Your task to perform on an android device: turn off sleep mode Image 0: 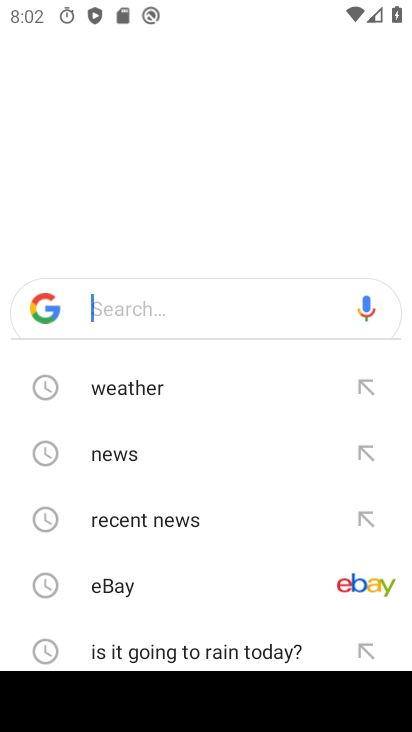
Step 0: press home button
Your task to perform on an android device: turn off sleep mode Image 1: 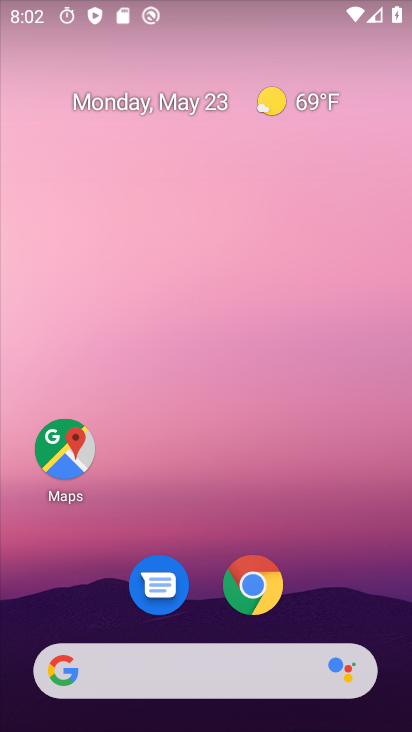
Step 1: drag from (196, 518) to (199, 70)
Your task to perform on an android device: turn off sleep mode Image 2: 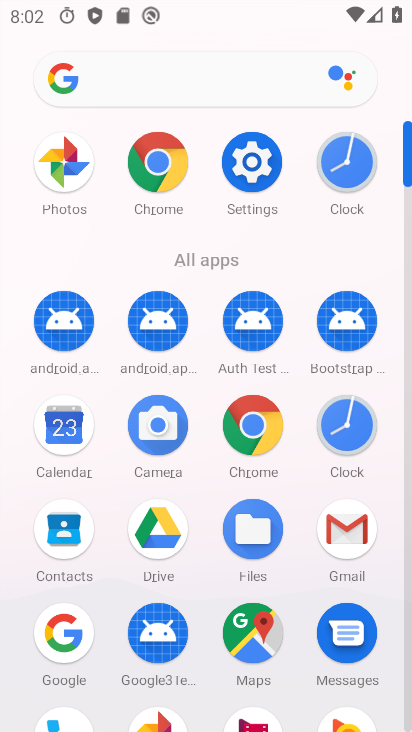
Step 2: click (253, 167)
Your task to perform on an android device: turn off sleep mode Image 3: 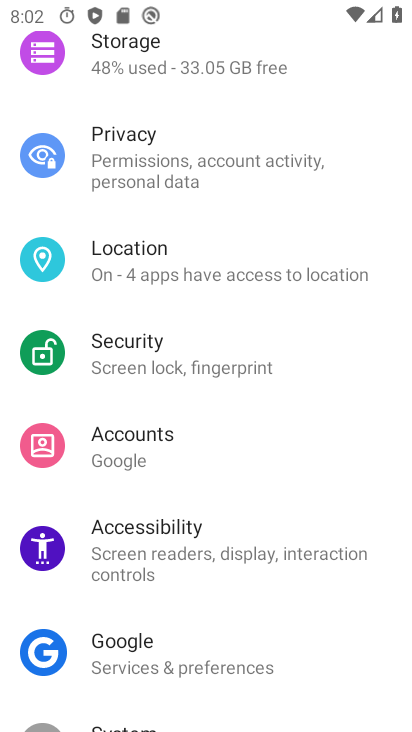
Step 3: drag from (216, 215) to (197, 680)
Your task to perform on an android device: turn off sleep mode Image 4: 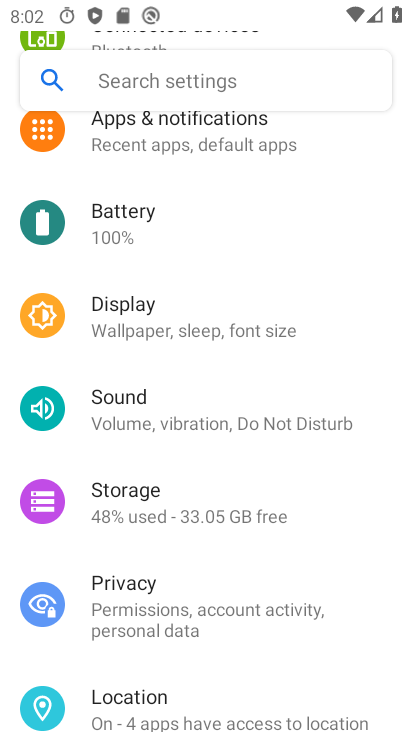
Step 4: click (218, 330)
Your task to perform on an android device: turn off sleep mode Image 5: 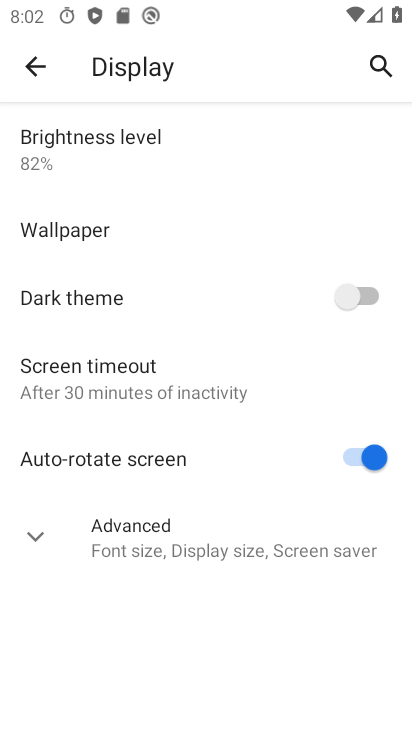
Step 5: click (40, 540)
Your task to perform on an android device: turn off sleep mode Image 6: 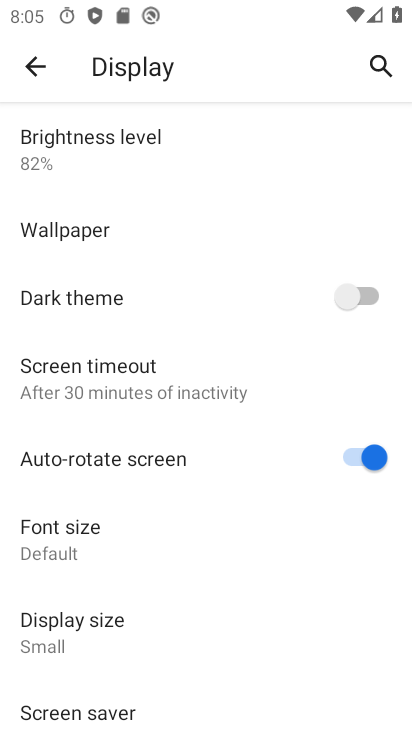
Step 6: task complete